Your task to perform on an android device: uninstall "Microsoft Excel" Image 0: 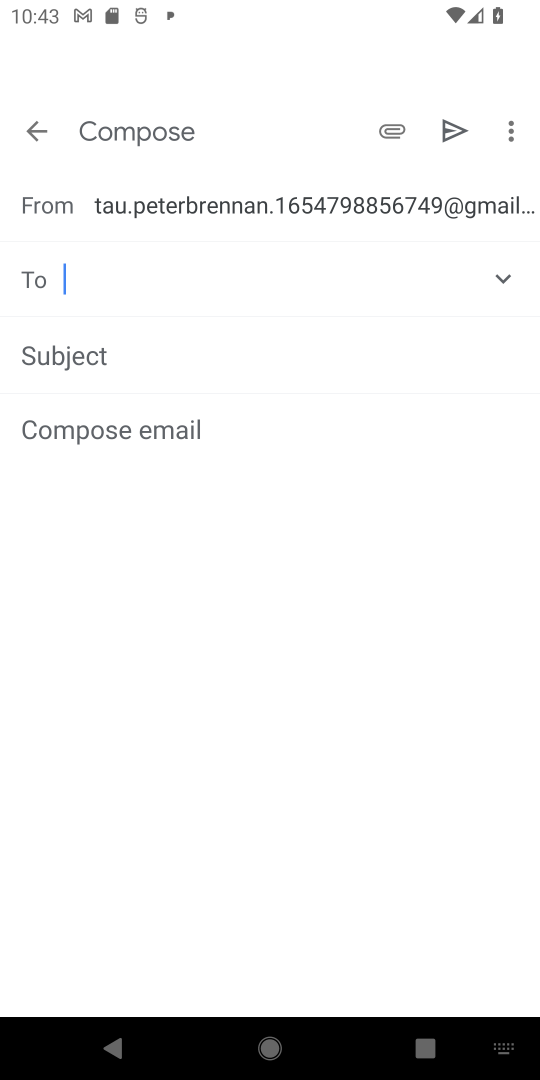
Step 0: press home button
Your task to perform on an android device: uninstall "Microsoft Excel" Image 1: 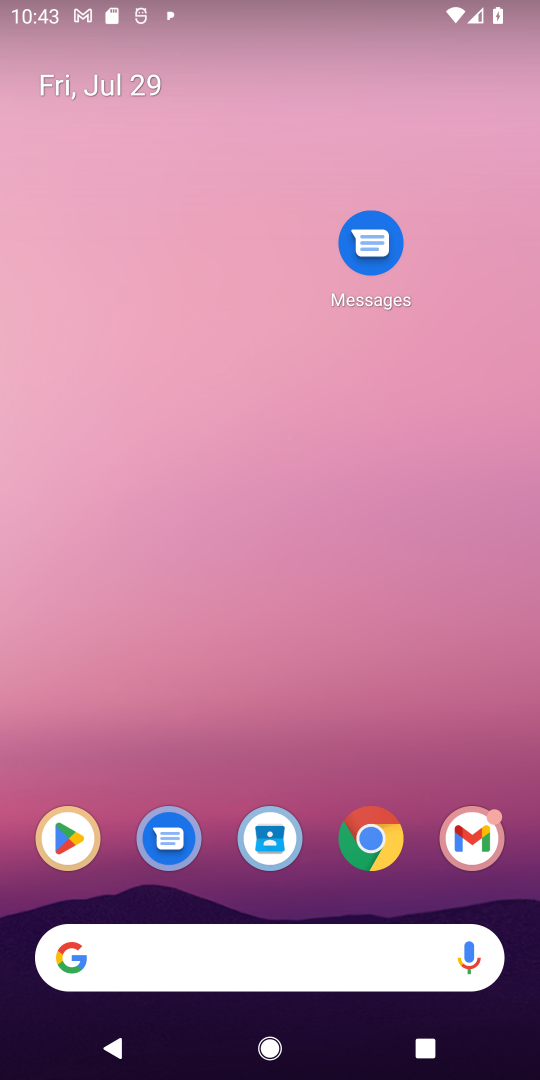
Step 1: click (78, 857)
Your task to perform on an android device: uninstall "Microsoft Excel" Image 2: 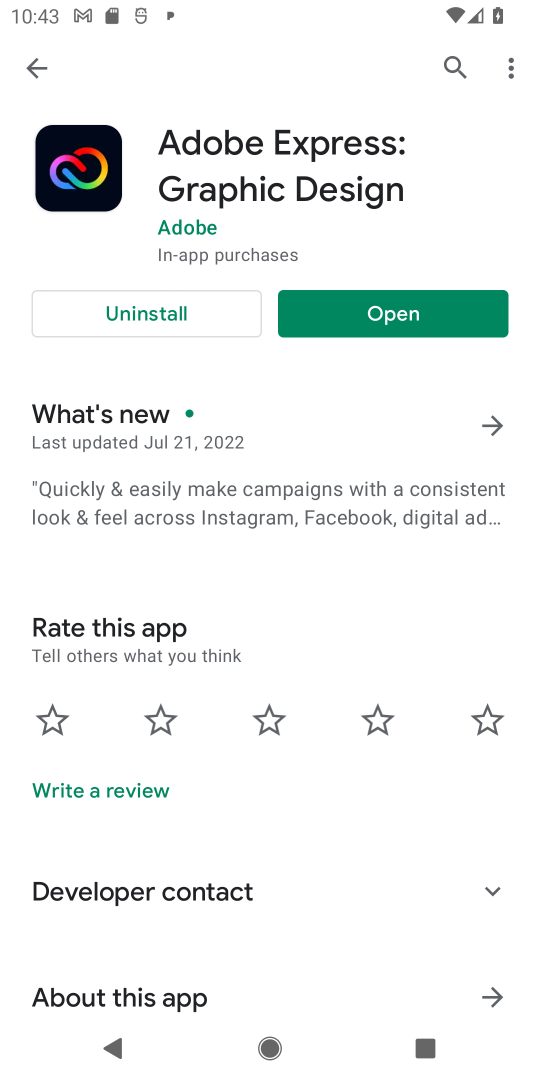
Step 2: click (31, 58)
Your task to perform on an android device: uninstall "Microsoft Excel" Image 3: 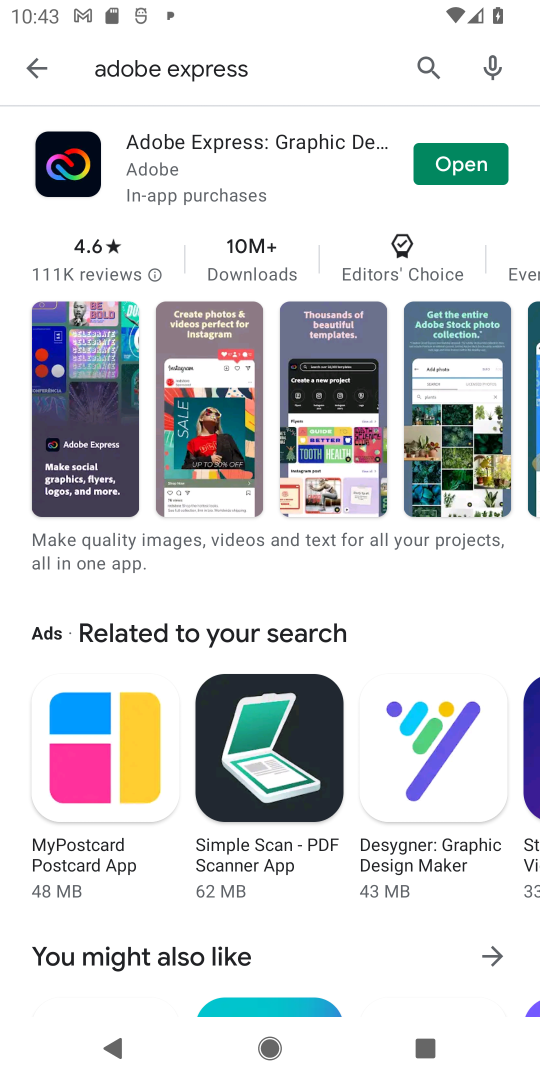
Step 3: click (324, 65)
Your task to perform on an android device: uninstall "Microsoft Excel" Image 4: 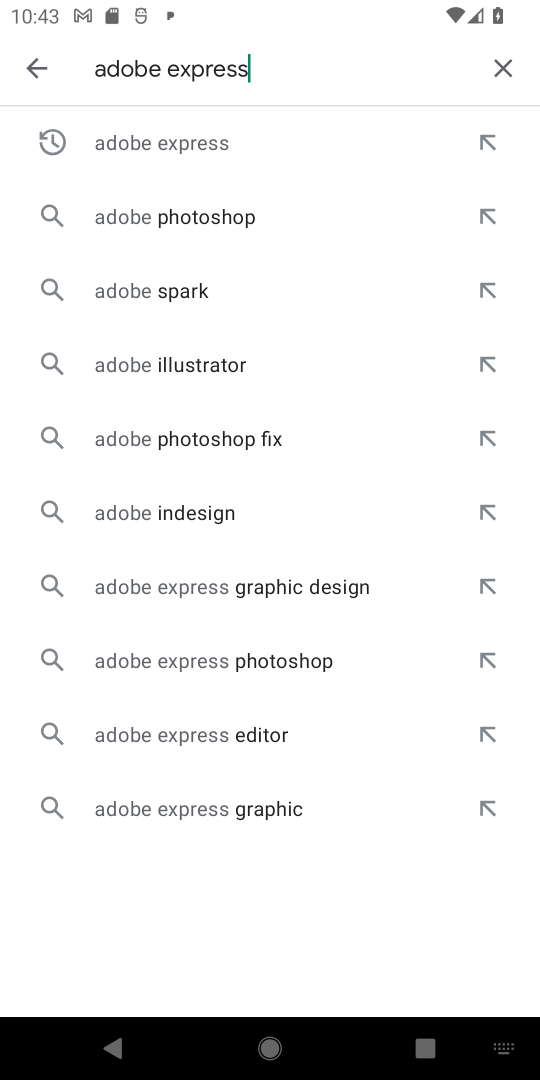
Step 4: click (499, 69)
Your task to perform on an android device: uninstall "Microsoft Excel" Image 5: 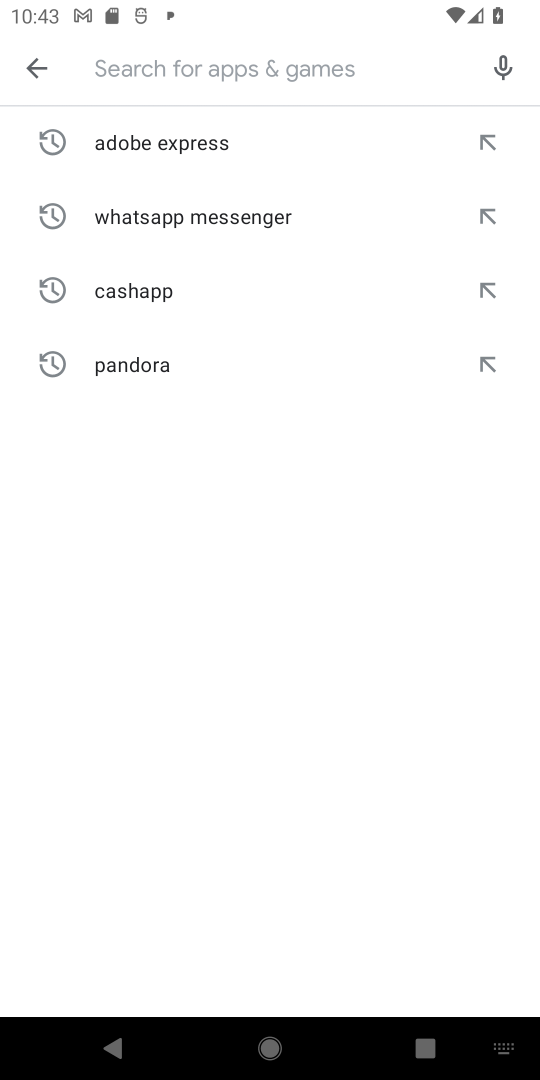
Step 5: type "microsoft Excel"
Your task to perform on an android device: uninstall "Microsoft Excel" Image 6: 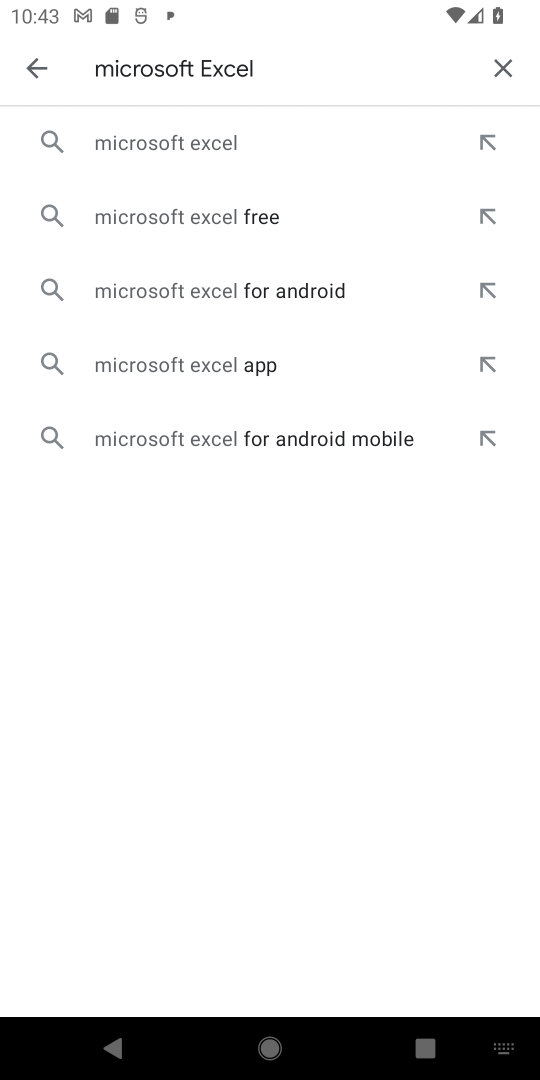
Step 6: click (172, 144)
Your task to perform on an android device: uninstall "Microsoft Excel" Image 7: 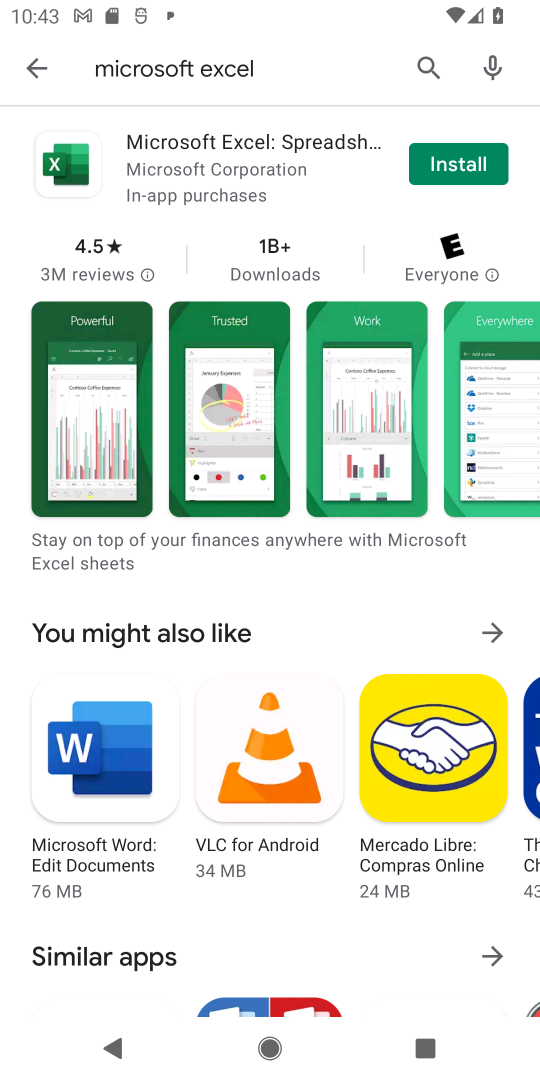
Step 7: click (237, 163)
Your task to perform on an android device: uninstall "Microsoft Excel" Image 8: 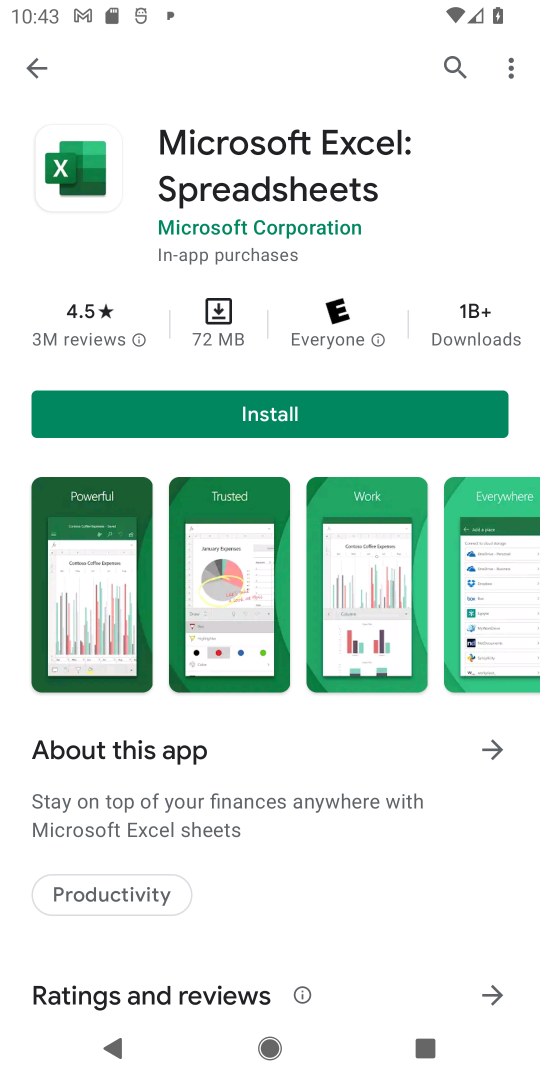
Step 8: task complete